Your task to perform on an android device: open a bookmark in the chrome app Image 0: 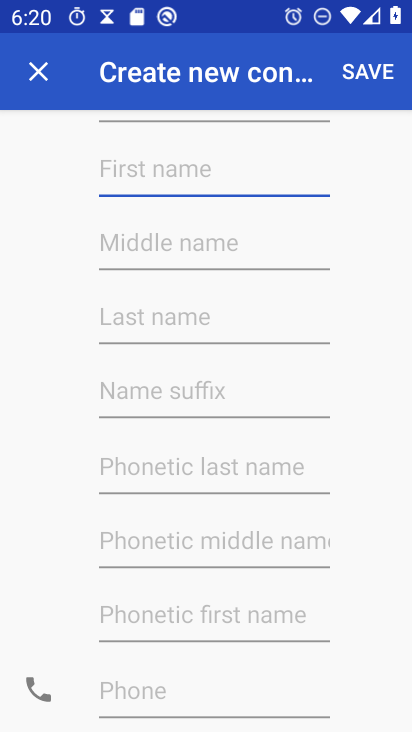
Step 0: drag from (233, 615) to (298, 145)
Your task to perform on an android device: open a bookmark in the chrome app Image 1: 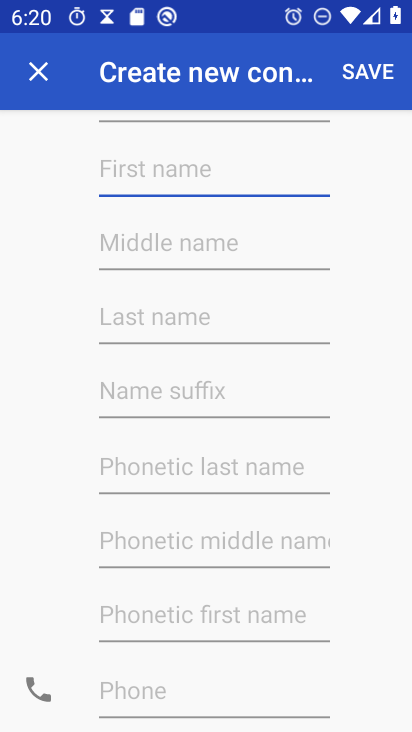
Step 1: press home button
Your task to perform on an android device: open a bookmark in the chrome app Image 2: 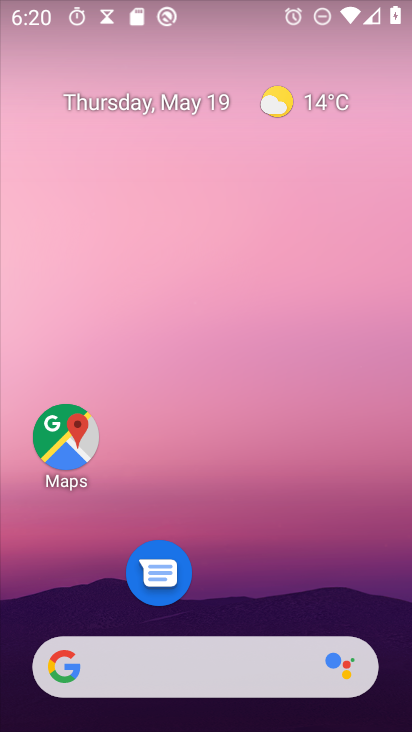
Step 2: drag from (220, 594) to (204, 99)
Your task to perform on an android device: open a bookmark in the chrome app Image 3: 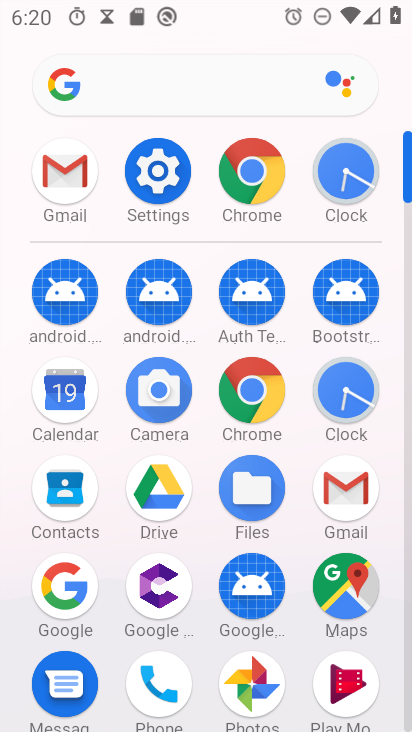
Step 3: click (238, 203)
Your task to perform on an android device: open a bookmark in the chrome app Image 4: 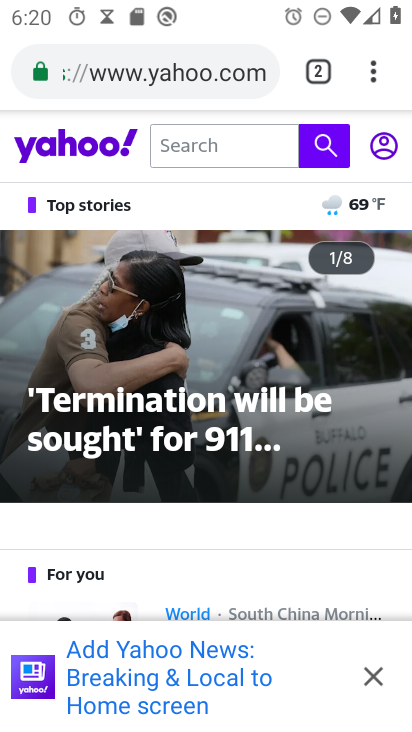
Step 4: click (365, 74)
Your task to perform on an android device: open a bookmark in the chrome app Image 5: 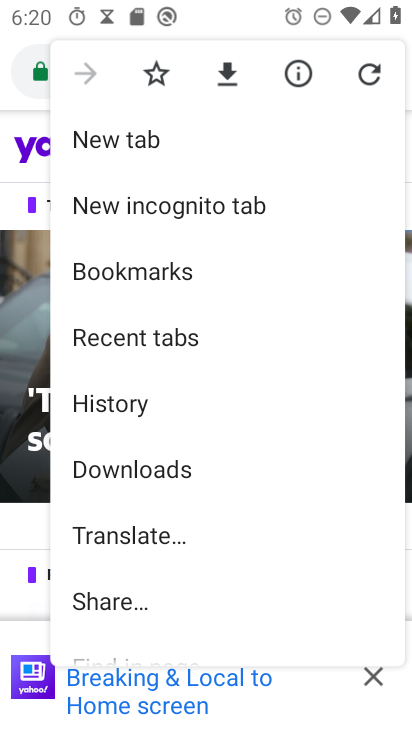
Step 5: click (178, 269)
Your task to perform on an android device: open a bookmark in the chrome app Image 6: 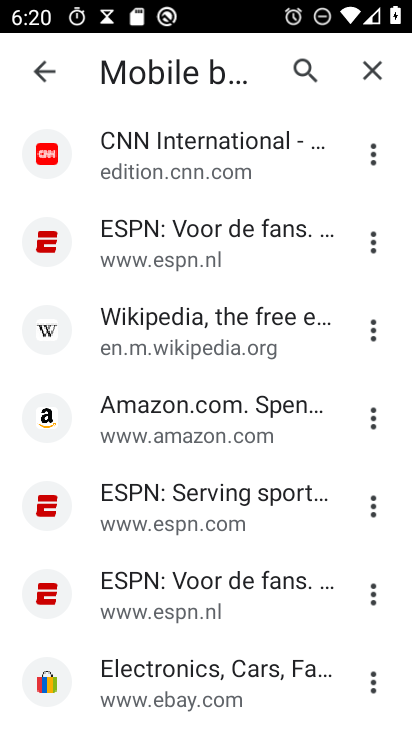
Step 6: click (194, 256)
Your task to perform on an android device: open a bookmark in the chrome app Image 7: 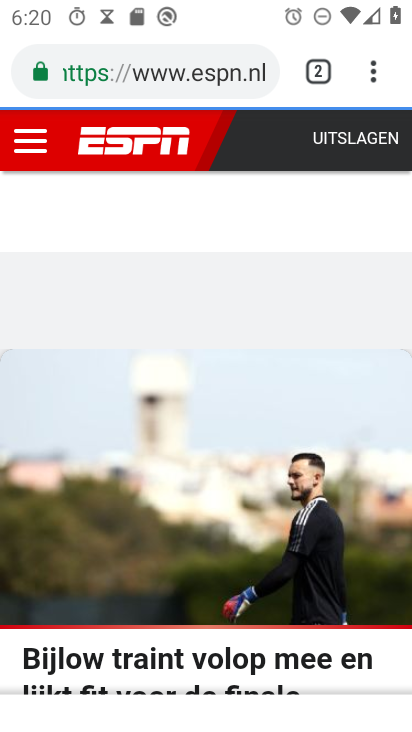
Step 7: task complete